Your task to perform on an android device: move an email to a new category in the gmail app Image 0: 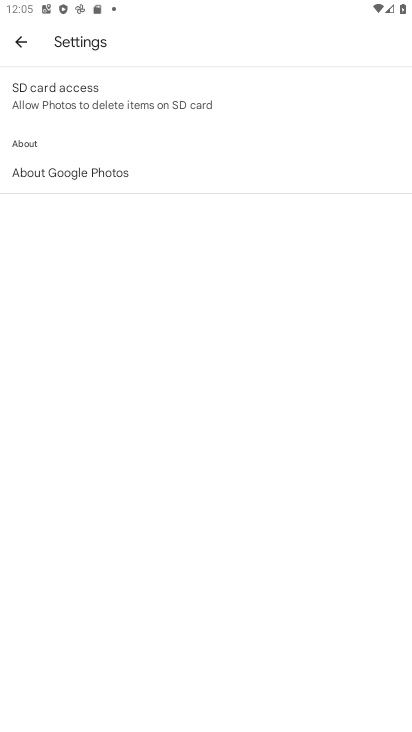
Step 0: press home button
Your task to perform on an android device: move an email to a new category in the gmail app Image 1: 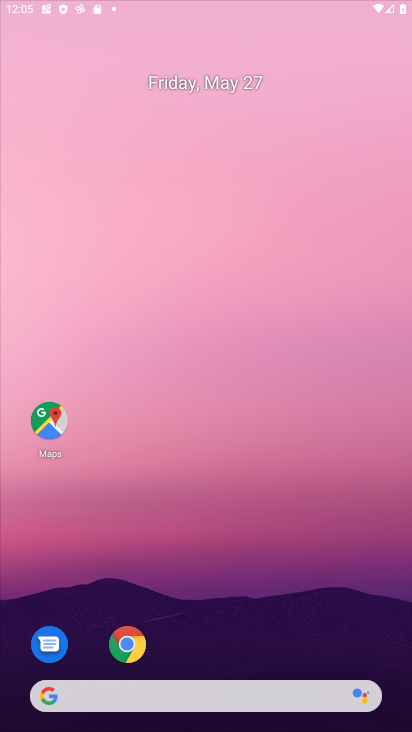
Step 1: drag from (357, 654) to (303, 2)
Your task to perform on an android device: move an email to a new category in the gmail app Image 2: 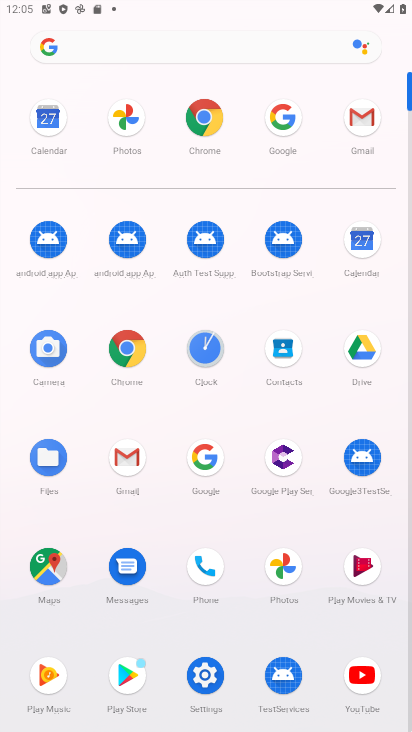
Step 2: click (362, 119)
Your task to perform on an android device: move an email to a new category in the gmail app Image 3: 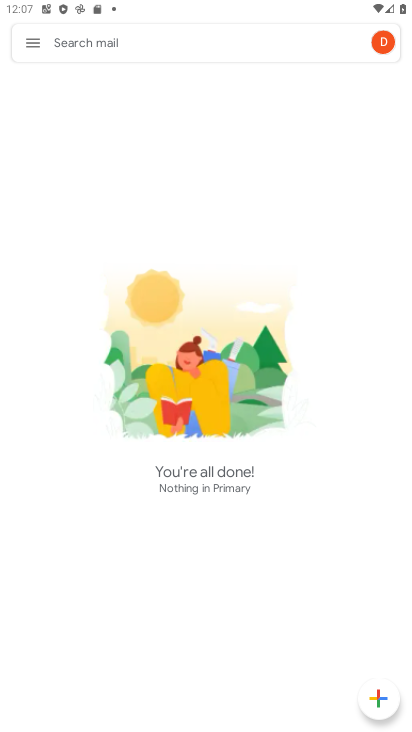
Step 3: task complete